Your task to perform on an android device: turn on airplane mode Image 0: 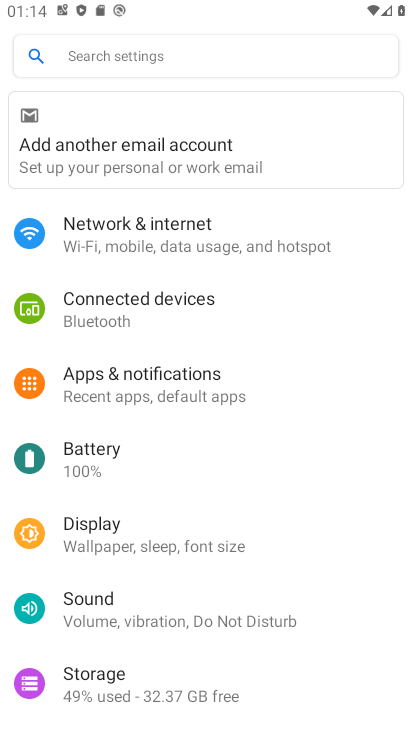
Step 0: press home button
Your task to perform on an android device: turn on airplane mode Image 1: 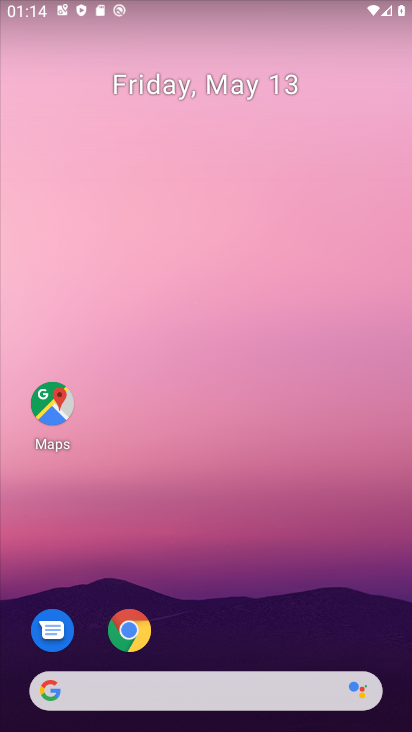
Step 1: drag from (237, 642) to (199, 100)
Your task to perform on an android device: turn on airplane mode Image 2: 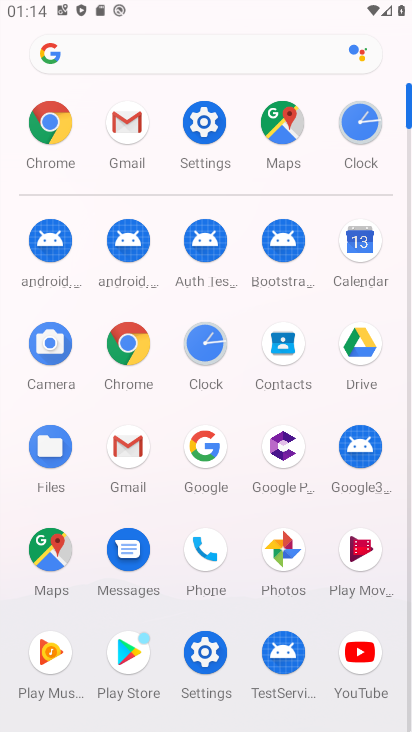
Step 2: click (203, 128)
Your task to perform on an android device: turn on airplane mode Image 3: 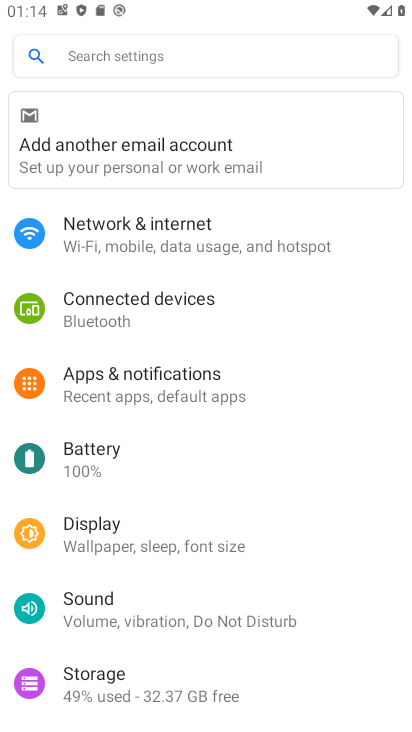
Step 3: click (175, 235)
Your task to perform on an android device: turn on airplane mode Image 4: 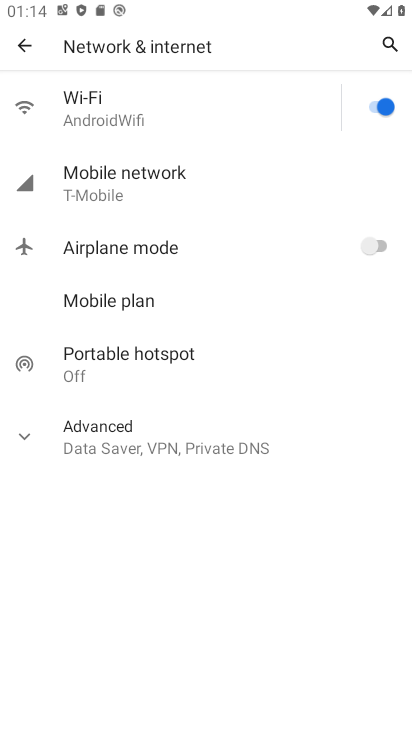
Step 4: click (193, 251)
Your task to perform on an android device: turn on airplane mode Image 5: 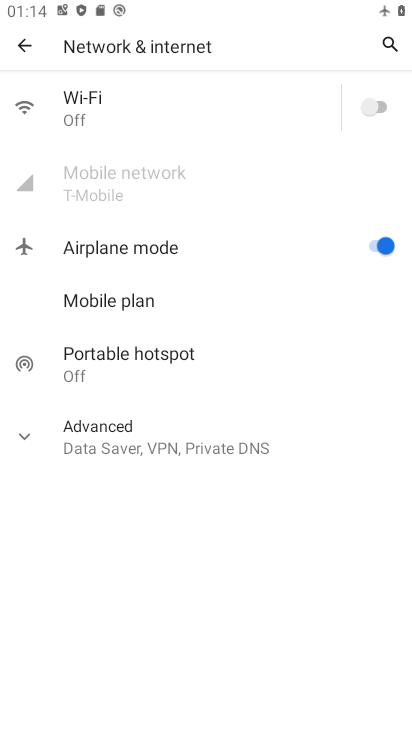
Step 5: task complete